Your task to perform on an android device: Go to Yahoo.com Image 0: 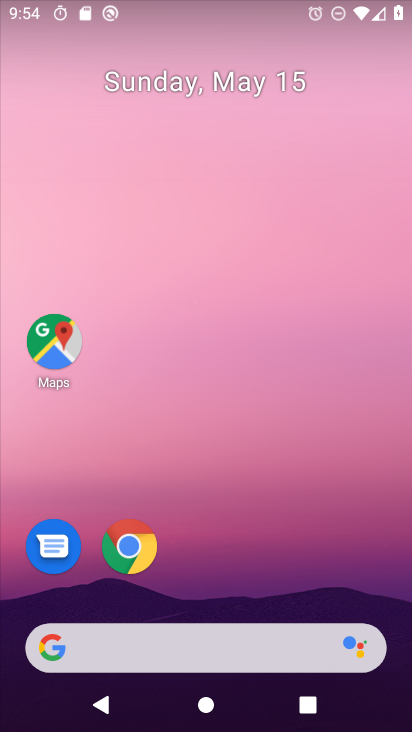
Step 0: click (271, 642)
Your task to perform on an android device: Go to Yahoo.com Image 1: 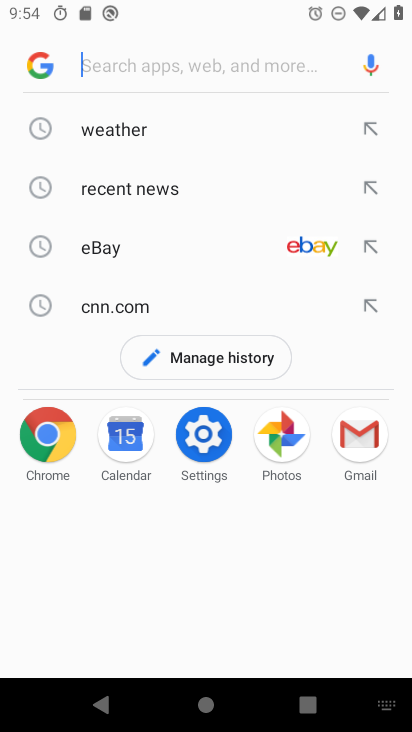
Step 1: type "yahoo.com"
Your task to perform on an android device: Go to Yahoo.com Image 2: 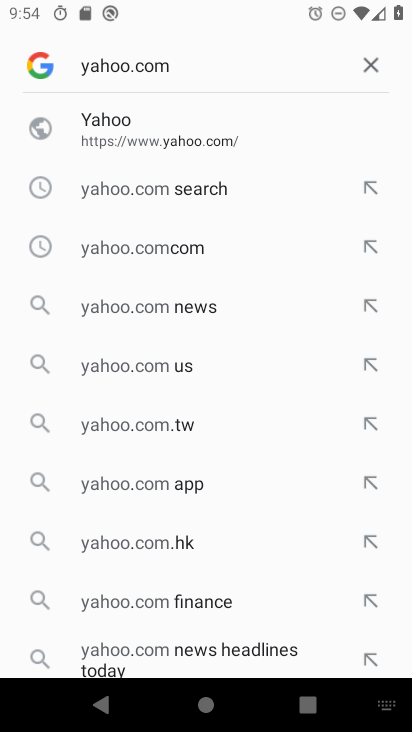
Step 2: click (75, 124)
Your task to perform on an android device: Go to Yahoo.com Image 3: 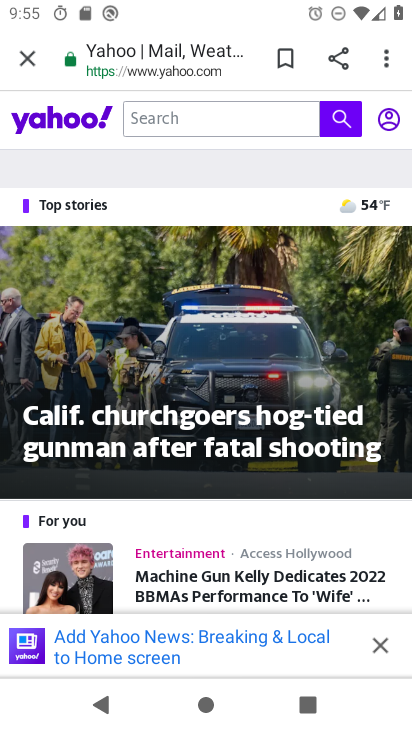
Step 3: task complete